Your task to perform on an android device: Toggle the flashlight Image 0: 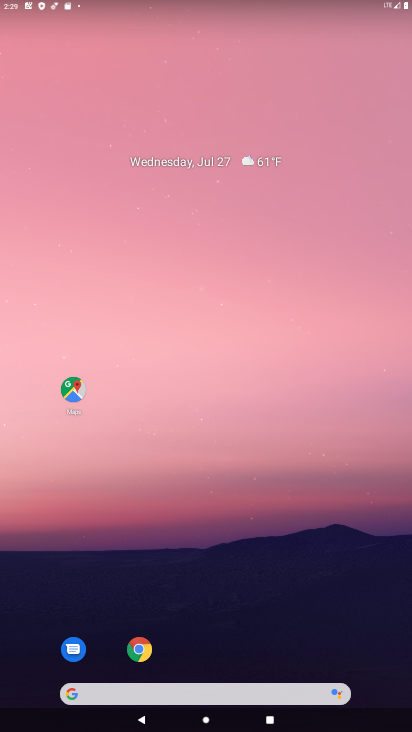
Step 0: drag from (173, 472) to (155, 117)
Your task to perform on an android device: Toggle the flashlight Image 1: 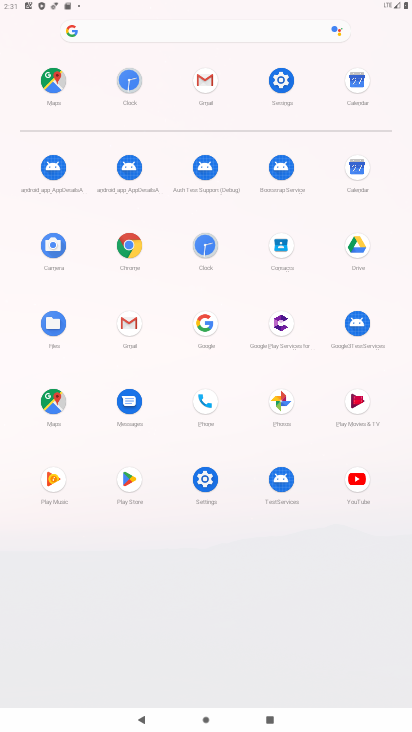
Step 1: task complete